Your task to perform on an android device: toggle javascript in the chrome app Image 0: 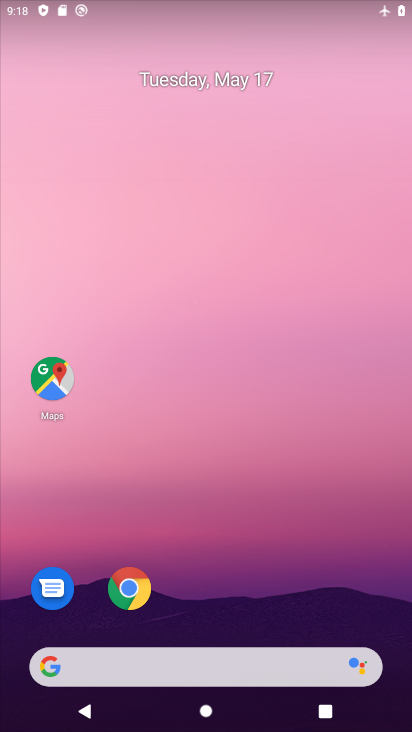
Step 0: click (136, 592)
Your task to perform on an android device: toggle javascript in the chrome app Image 1: 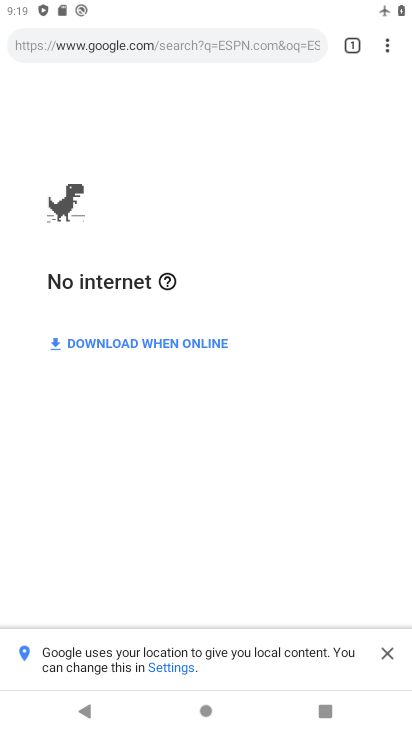
Step 1: click (387, 49)
Your task to perform on an android device: toggle javascript in the chrome app Image 2: 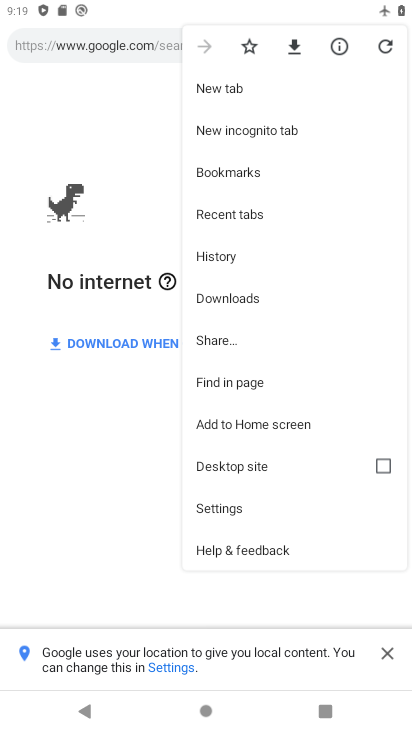
Step 2: click (232, 506)
Your task to perform on an android device: toggle javascript in the chrome app Image 3: 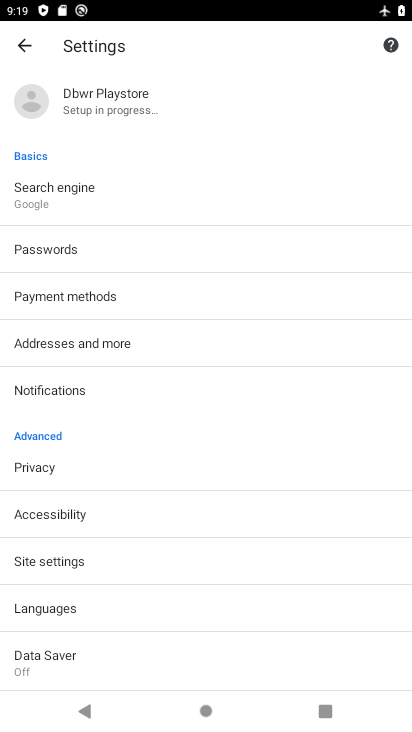
Step 3: click (81, 559)
Your task to perform on an android device: toggle javascript in the chrome app Image 4: 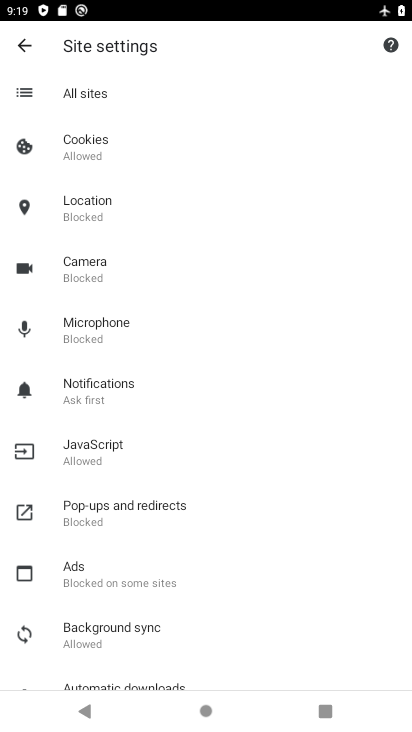
Step 4: click (87, 440)
Your task to perform on an android device: toggle javascript in the chrome app Image 5: 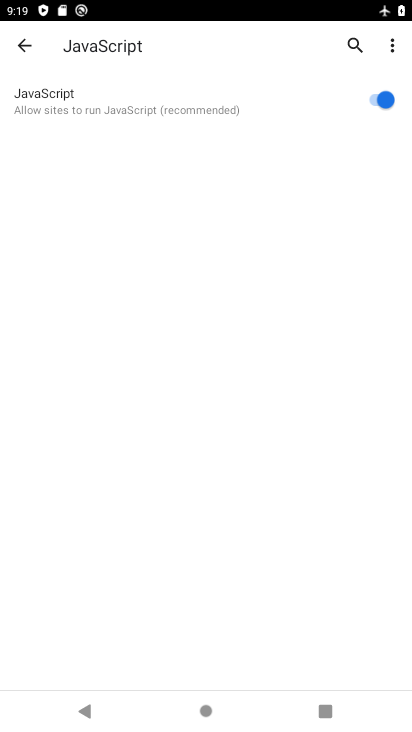
Step 5: click (372, 97)
Your task to perform on an android device: toggle javascript in the chrome app Image 6: 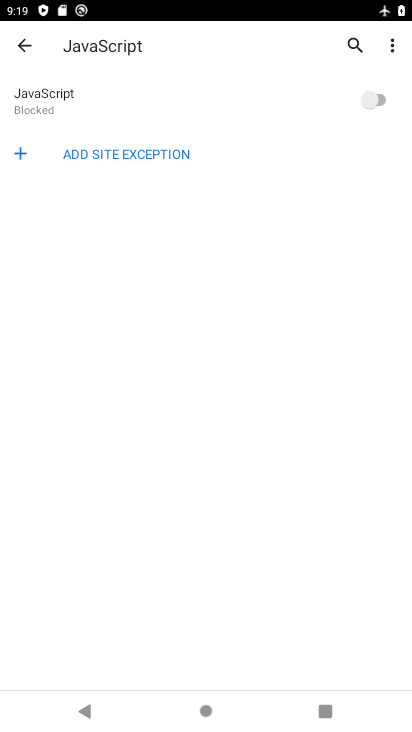
Step 6: task complete